Your task to perform on an android device: Open calendar and show me the third week of next month Image 0: 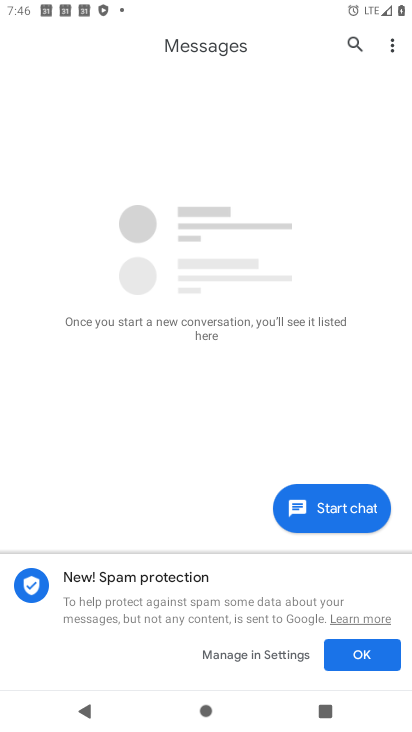
Step 0: press home button
Your task to perform on an android device: Open calendar and show me the third week of next month Image 1: 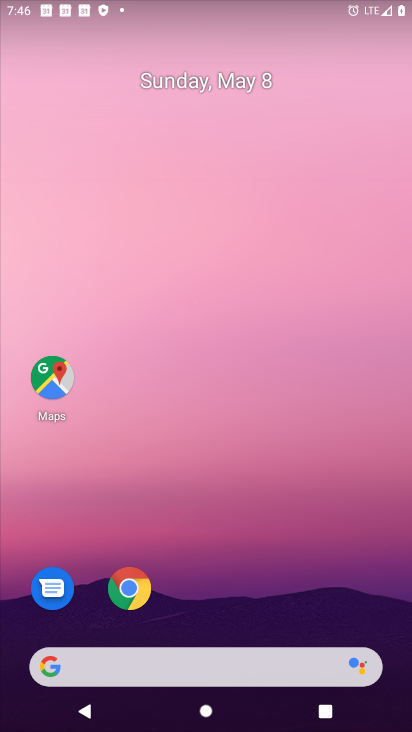
Step 1: drag from (152, 667) to (225, 135)
Your task to perform on an android device: Open calendar and show me the third week of next month Image 2: 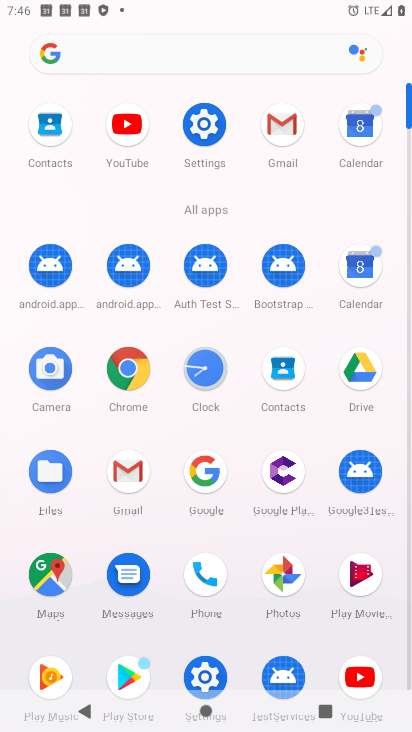
Step 2: click (360, 280)
Your task to perform on an android device: Open calendar and show me the third week of next month Image 3: 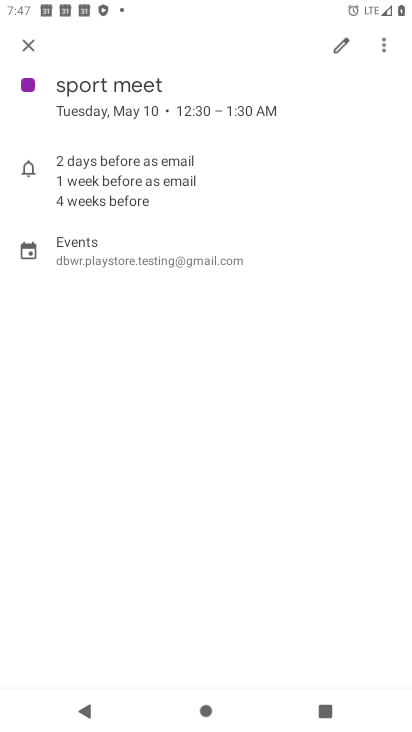
Step 3: click (30, 47)
Your task to perform on an android device: Open calendar and show me the third week of next month Image 4: 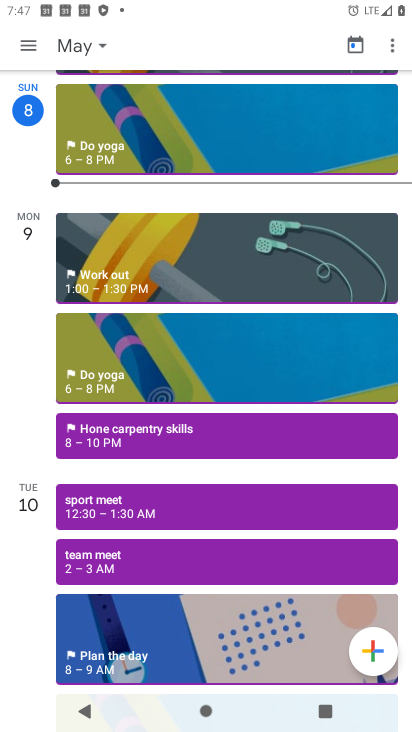
Step 4: click (84, 39)
Your task to perform on an android device: Open calendar and show me the third week of next month Image 5: 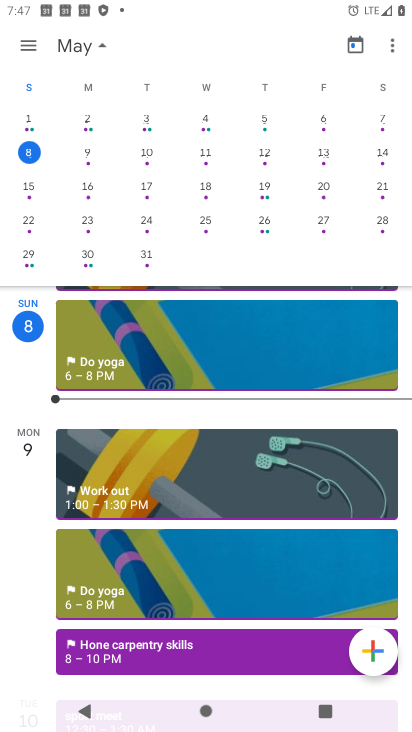
Step 5: drag from (364, 197) to (0, 240)
Your task to perform on an android device: Open calendar and show me the third week of next month Image 6: 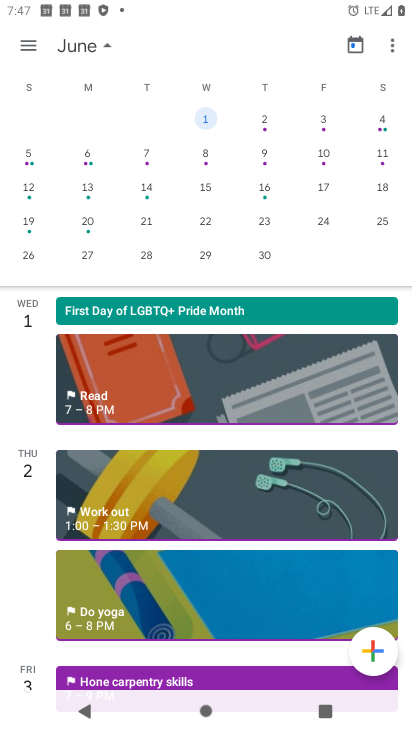
Step 6: click (29, 191)
Your task to perform on an android device: Open calendar and show me the third week of next month Image 7: 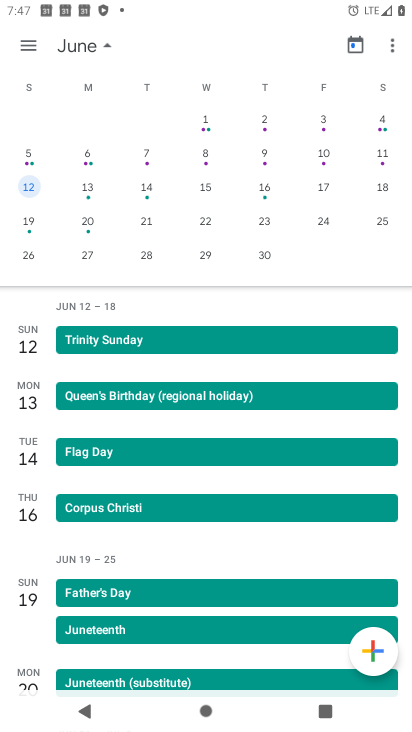
Step 7: click (35, 40)
Your task to perform on an android device: Open calendar and show me the third week of next month Image 8: 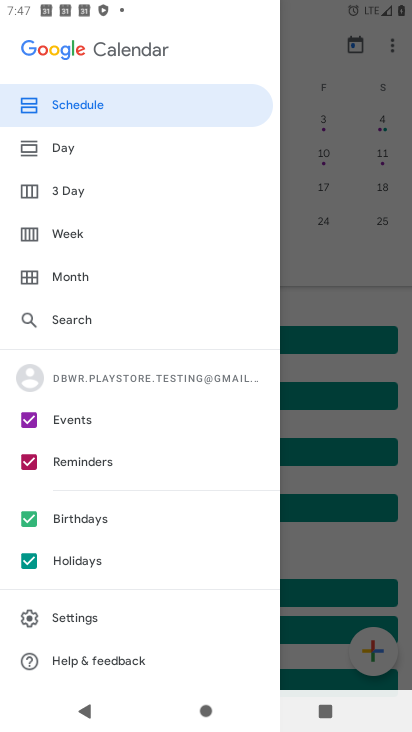
Step 8: click (70, 237)
Your task to perform on an android device: Open calendar and show me the third week of next month Image 9: 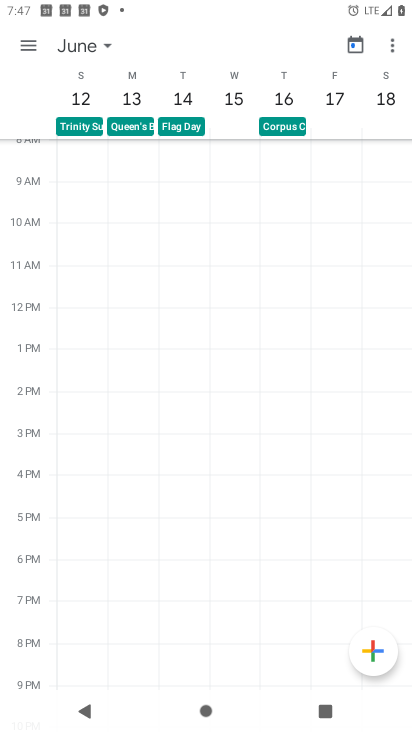
Step 9: task complete